Your task to perform on an android device: Clear the cart on amazon.com. Search for "usb-c to usb-a" on amazon.com, select the first entry, and add it to the cart. Image 0: 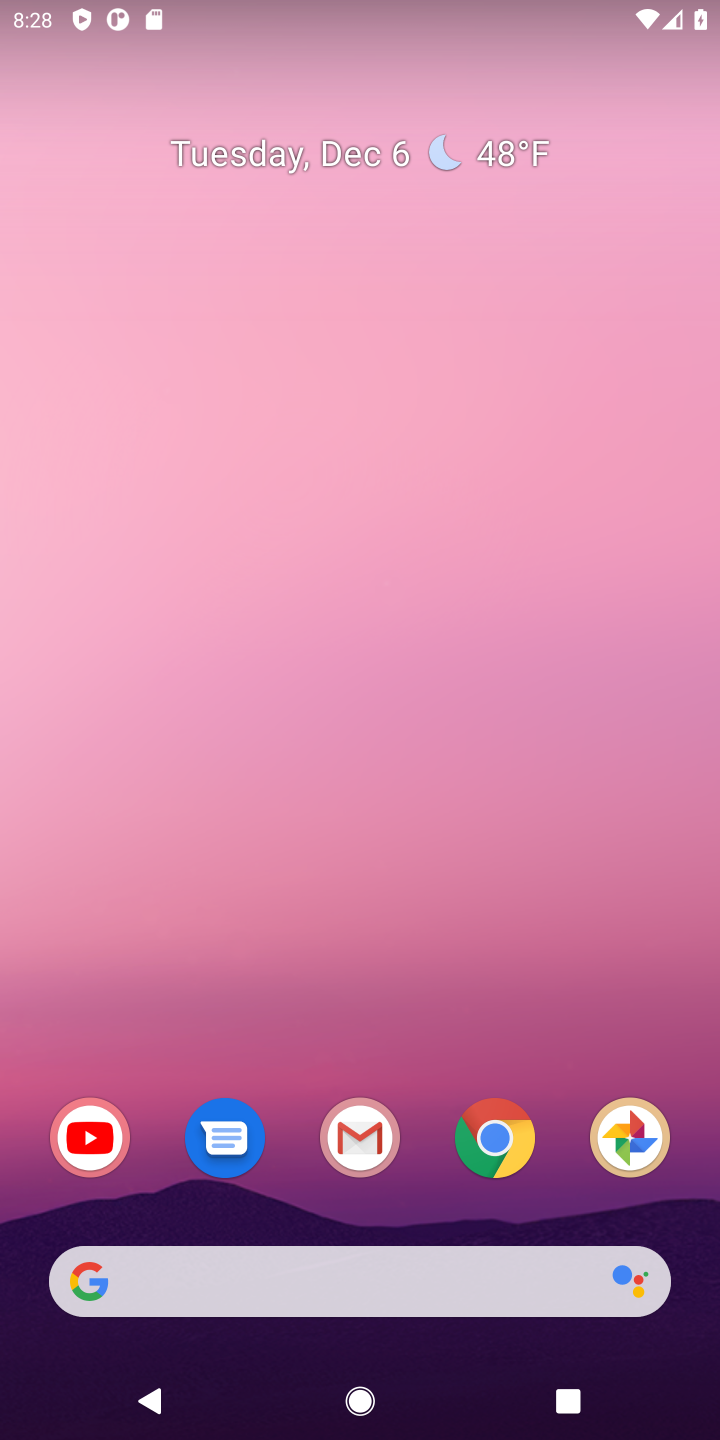
Step 0: click (494, 1143)
Your task to perform on an android device: Clear the cart on amazon.com. Search for "usb-c to usb-a" on amazon.com, select the first entry, and add it to the cart. Image 1: 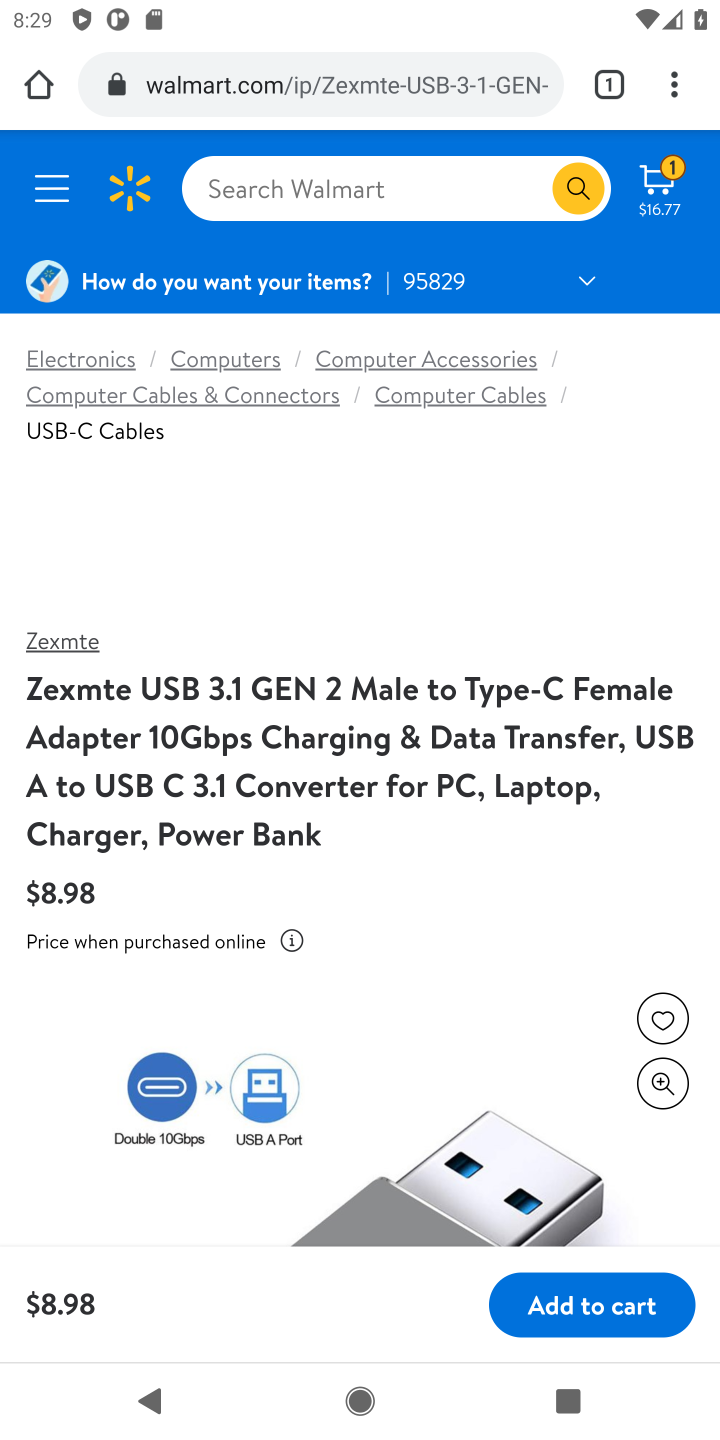
Step 1: click (294, 87)
Your task to perform on an android device: Clear the cart on amazon.com. Search for "usb-c to usb-a" on amazon.com, select the first entry, and add it to the cart. Image 2: 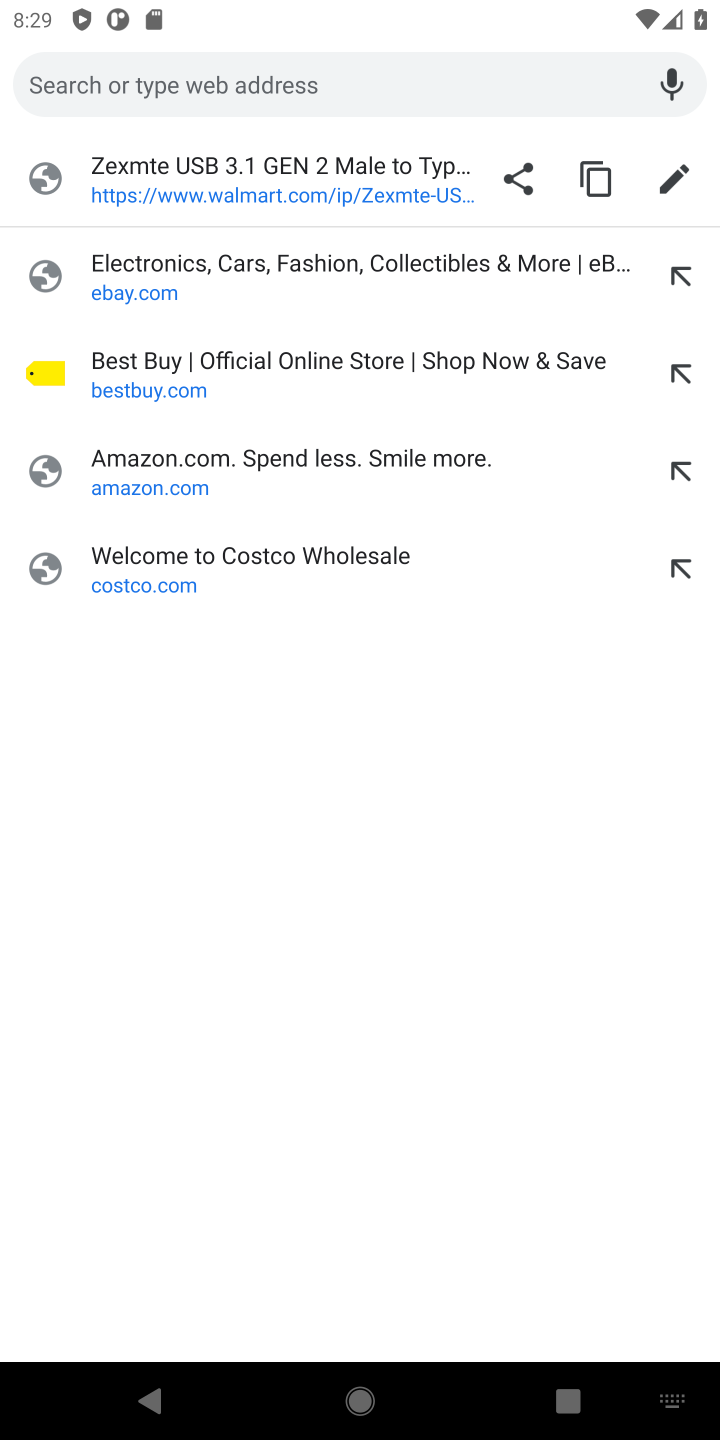
Step 2: click (130, 463)
Your task to perform on an android device: Clear the cart on amazon.com. Search for "usb-c to usb-a" on amazon.com, select the first entry, and add it to the cart. Image 3: 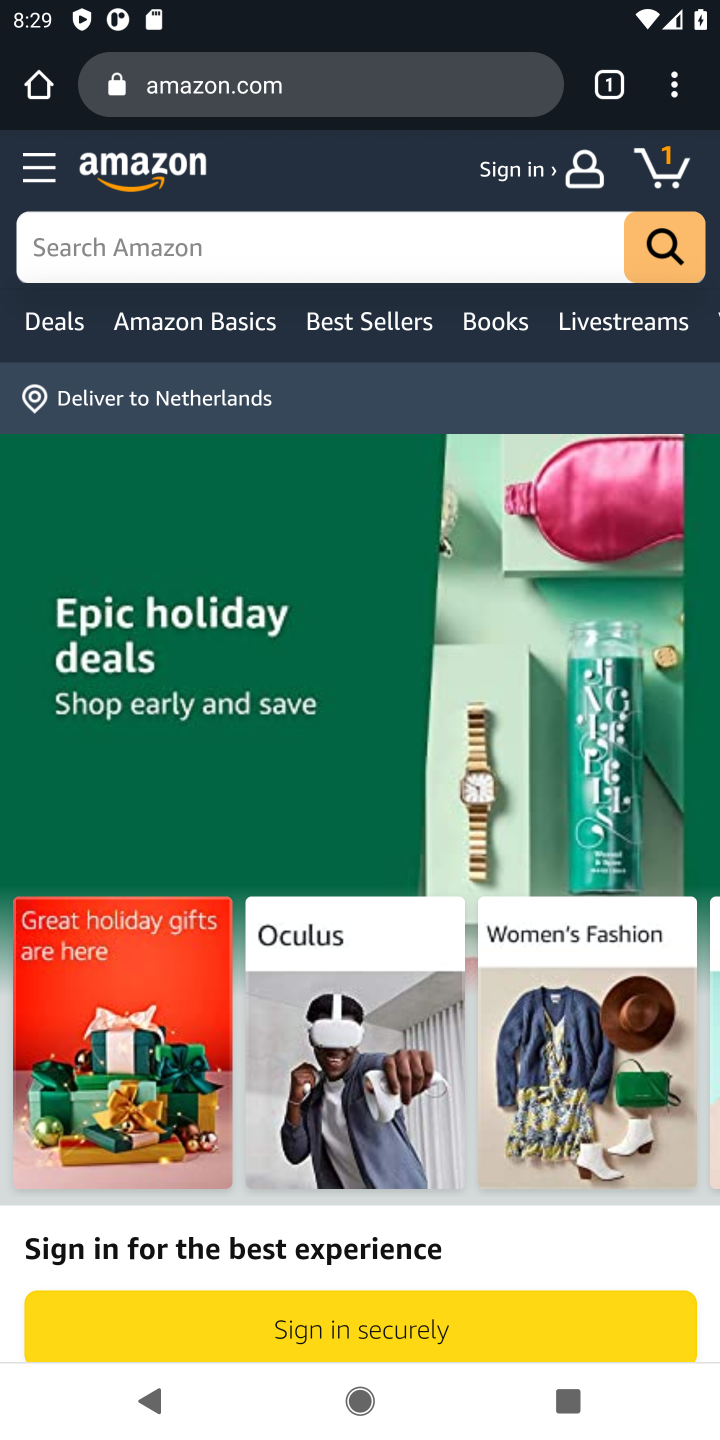
Step 3: click (657, 167)
Your task to perform on an android device: Clear the cart on amazon.com. Search for "usb-c to usb-a" on amazon.com, select the first entry, and add it to the cart. Image 4: 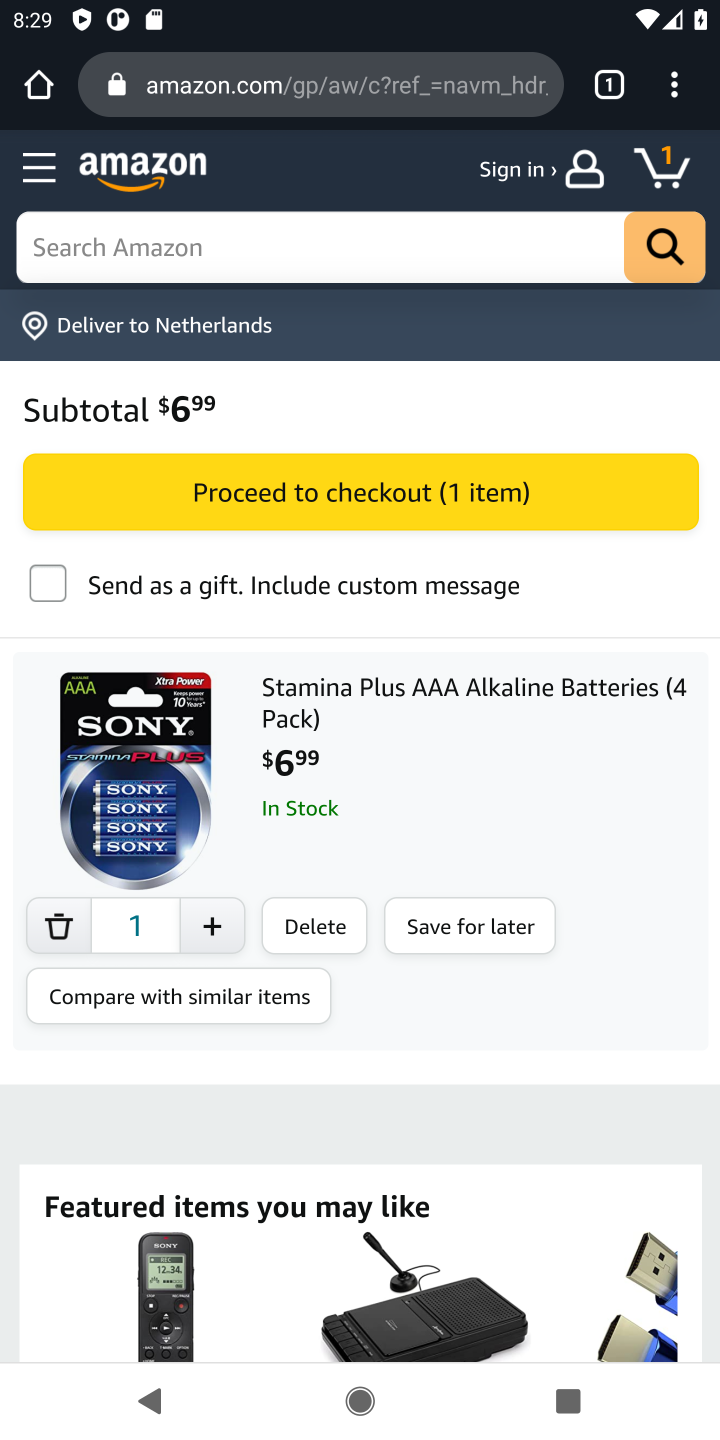
Step 4: click (318, 927)
Your task to perform on an android device: Clear the cart on amazon.com. Search for "usb-c to usb-a" on amazon.com, select the first entry, and add it to the cart. Image 5: 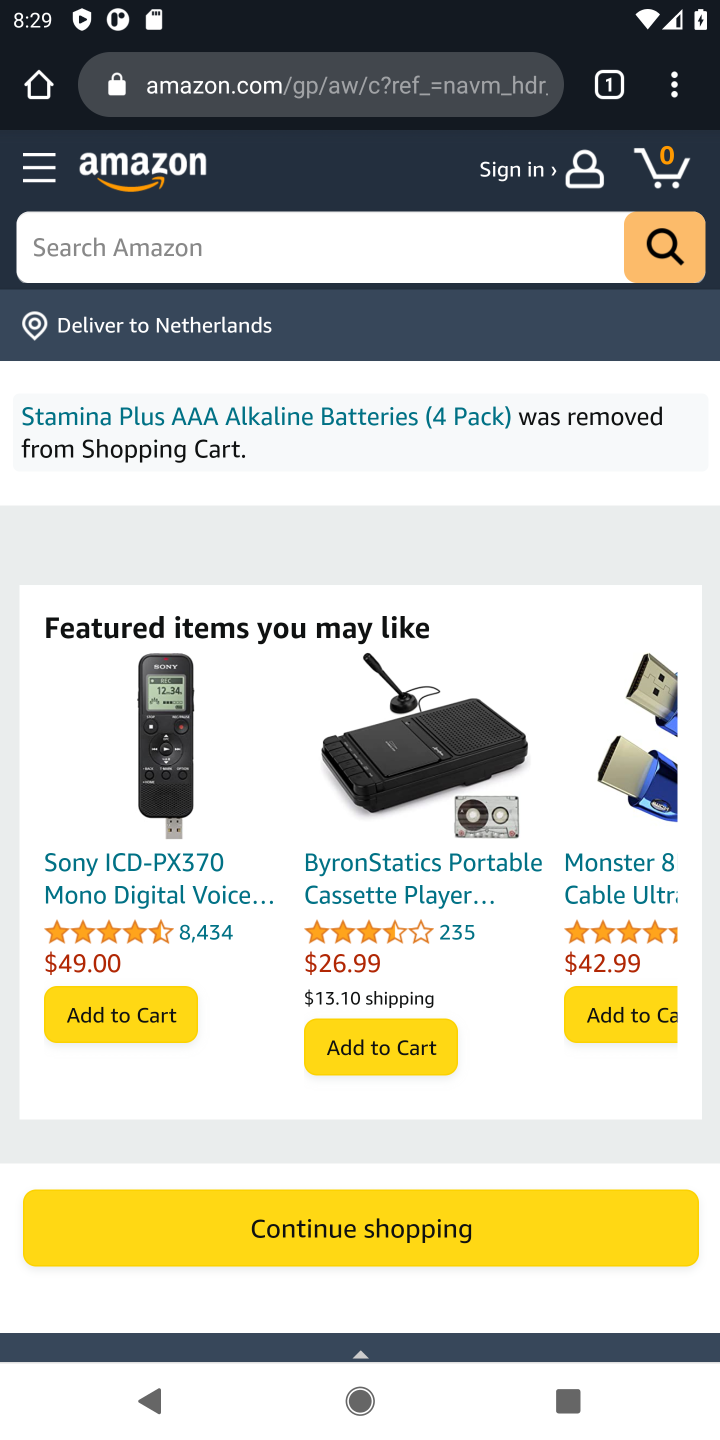
Step 5: click (174, 240)
Your task to perform on an android device: Clear the cart on amazon.com. Search for "usb-c to usb-a" on amazon.com, select the first entry, and add it to the cart. Image 6: 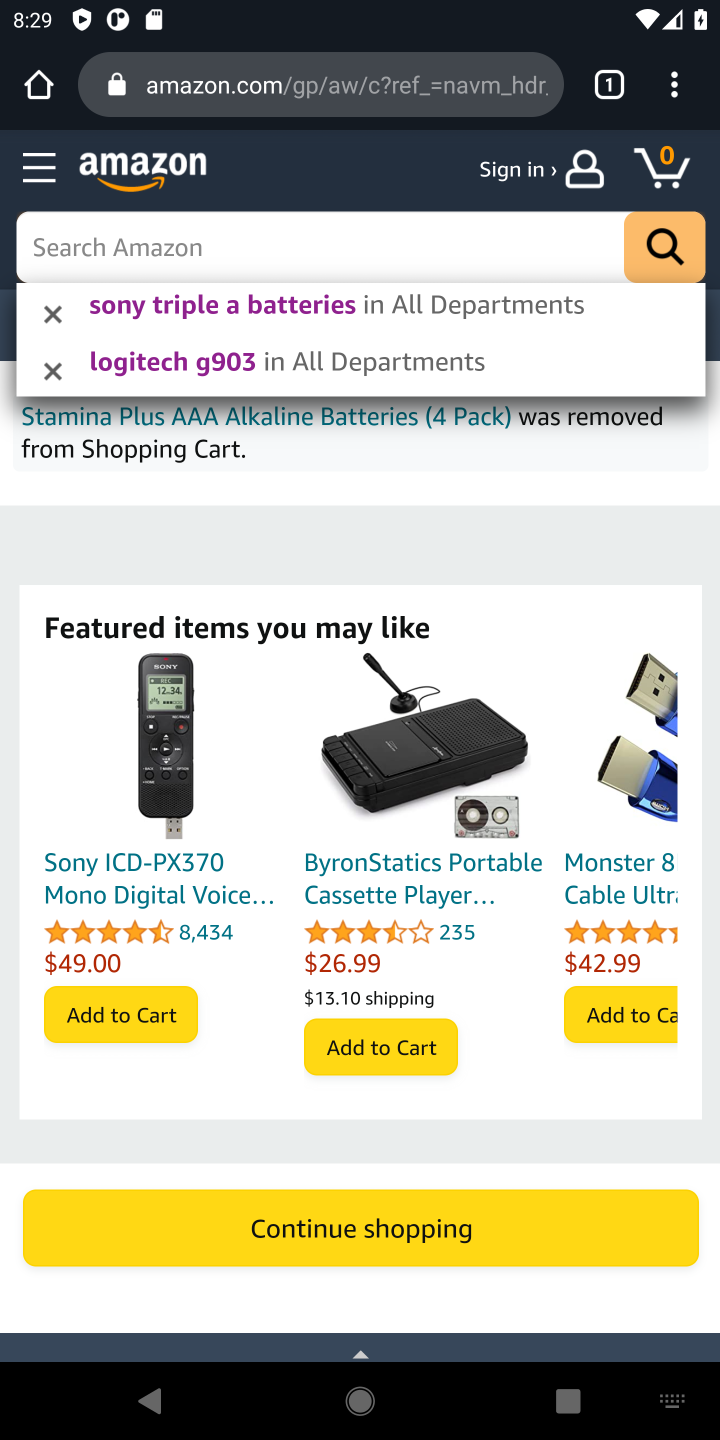
Step 6: type "usb-c to usb-a"
Your task to perform on an android device: Clear the cart on amazon.com. Search for "usb-c to usb-a" on amazon.com, select the first entry, and add it to the cart. Image 7: 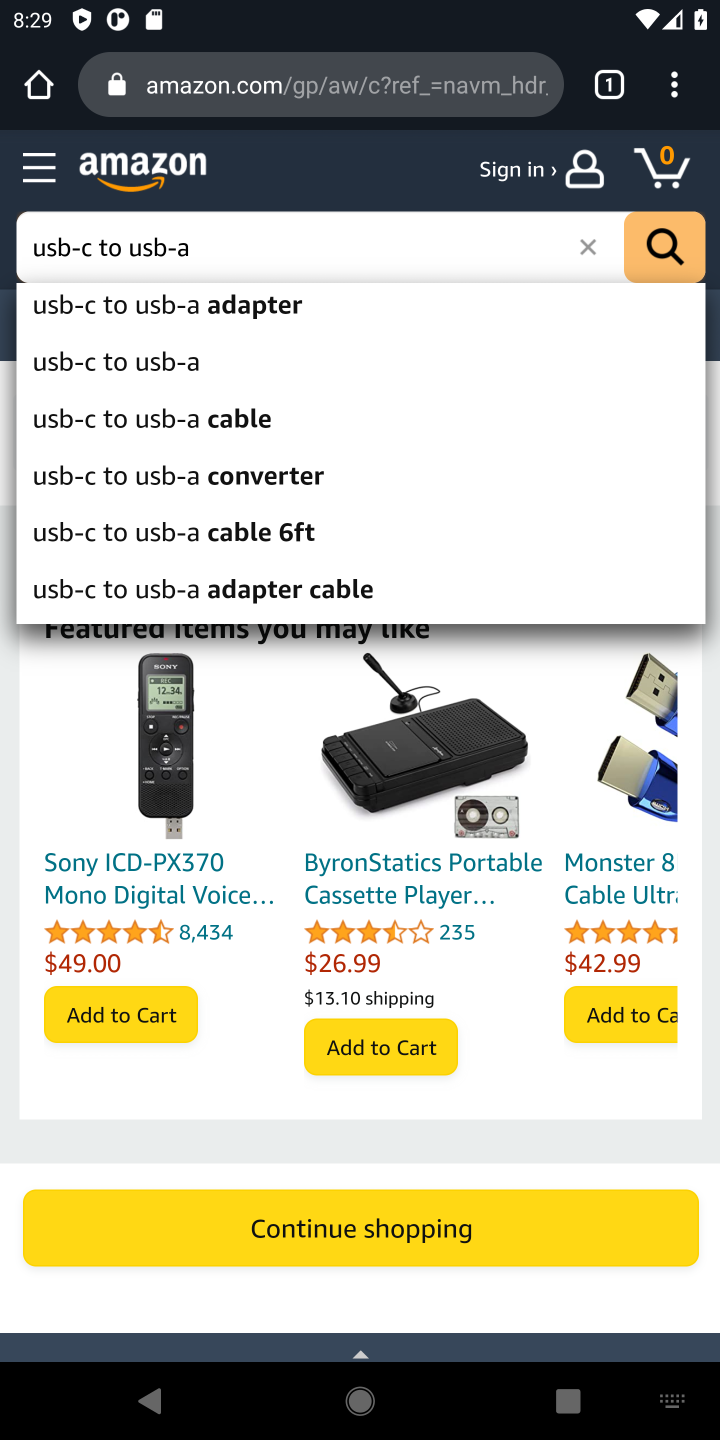
Step 7: click (99, 363)
Your task to perform on an android device: Clear the cart on amazon.com. Search for "usb-c to usb-a" on amazon.com, select the first entry, and add it to the cart. Image 8: 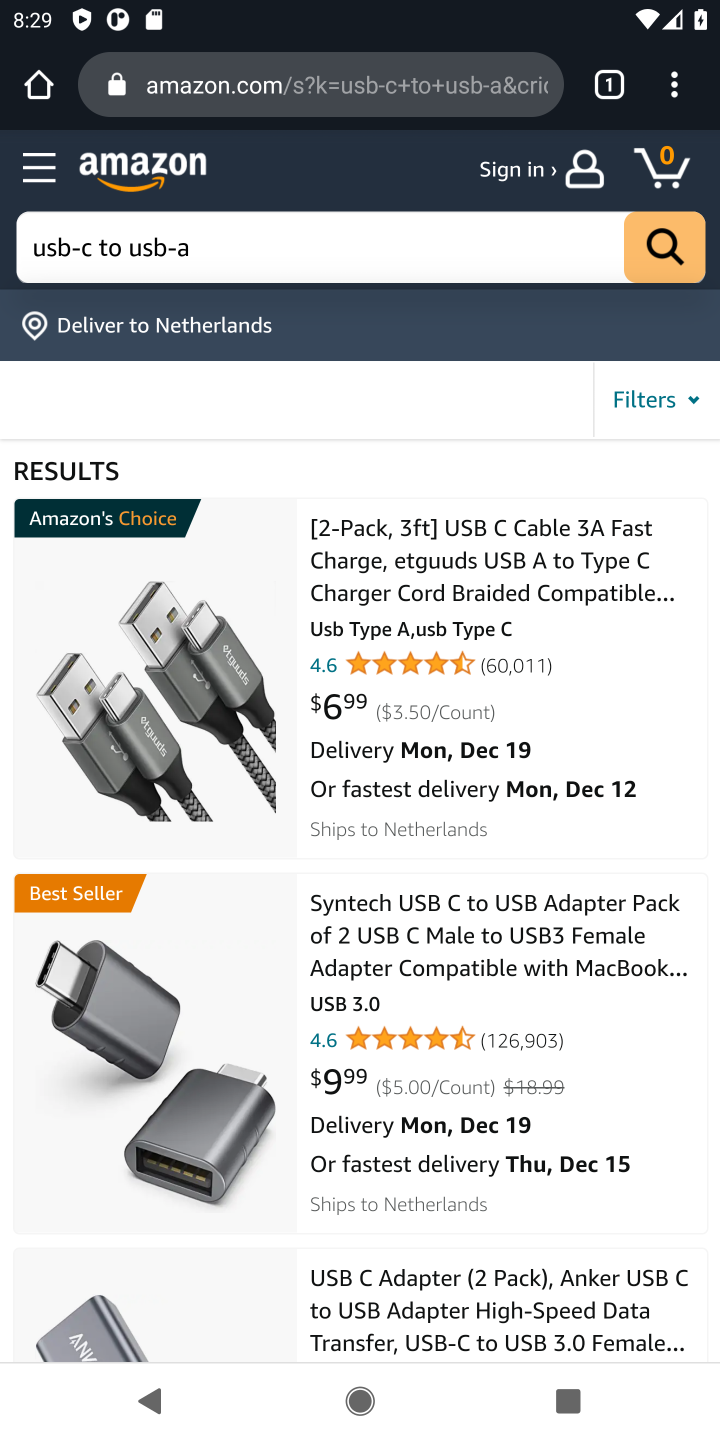
Step 8: click (479, 584)
Your task to perform on an android device: Clear the cart on amazon.com. Search for "usb-c to usb-a" on amazon.com, select the first entry, and add it to the cart. Image 9: 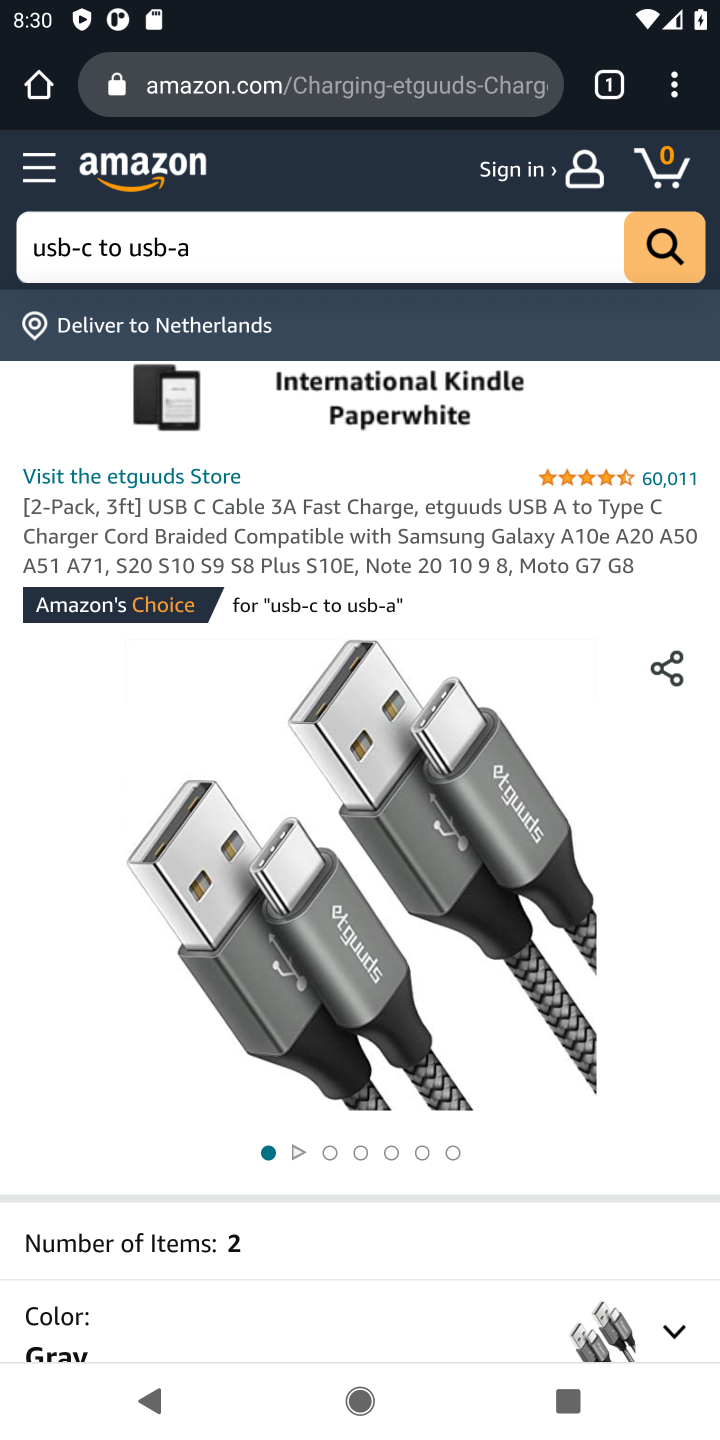
Step 9: task complete